Your task to perform on an android device: turn on javascript in the chrome app Image 0: 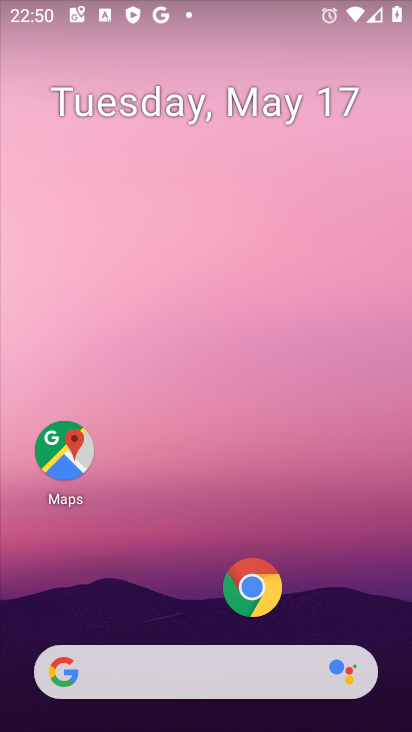
Step 0: drag from (197, 611) to (198, 275)
Your task to perform on an android device: turn on javascript in the chrome app Image 1: 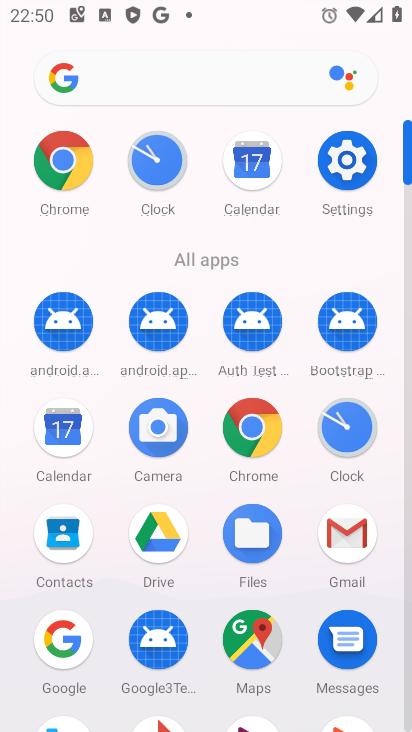
Step 1: click (263, 444)
Your task to perform on an android device: turn on javascript in the chrome app Image 2: 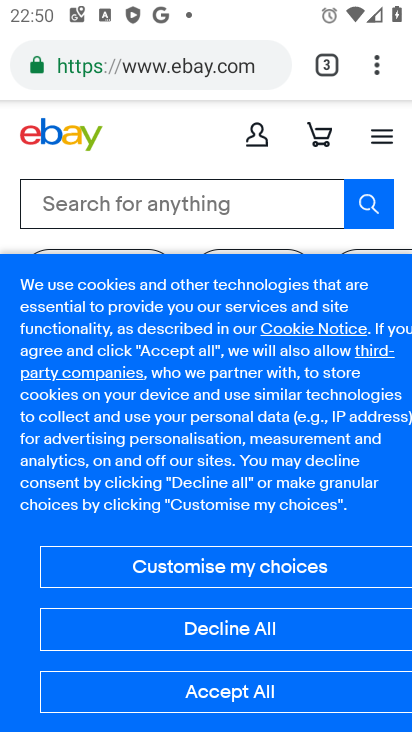
Step 2: click (367, 67)
Your task to perform on an android device: turn on javascript in the chrome app Image 3: 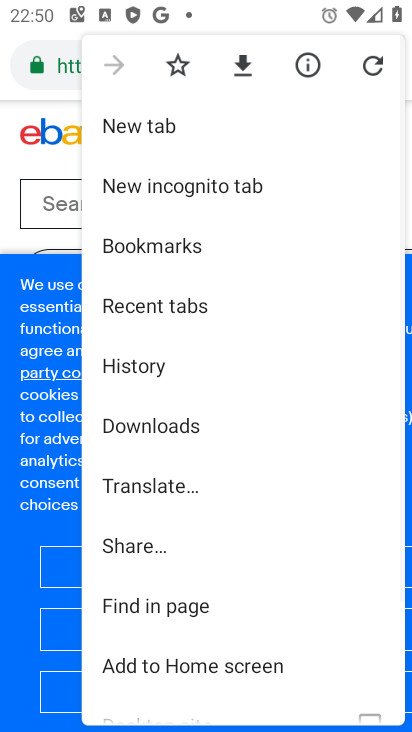
Step 3: drag from (182, 627) to (239, 279)
Your task to perform on an android device: turn on javascript in the chrome app Image 4: 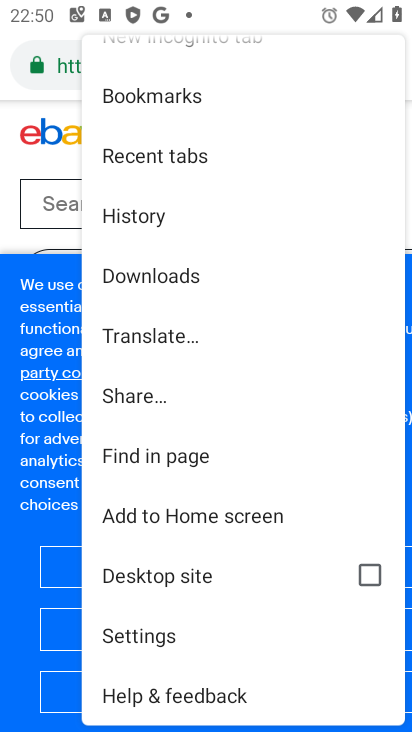
Step 4: click (154, 647)
Your task to perform on an android device: turn on javascript in the chrome app Image 5: 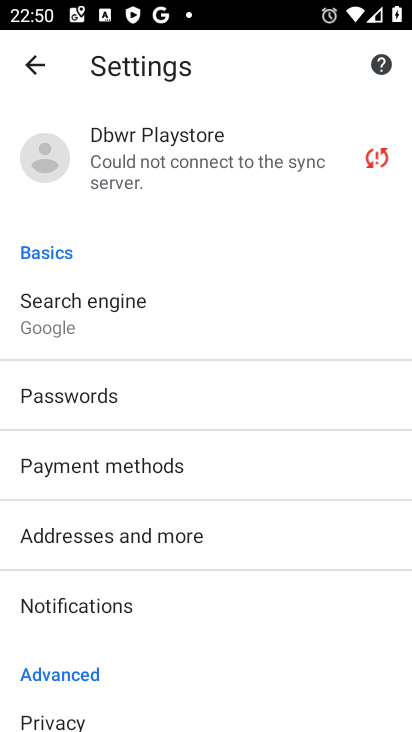
Step 5: drag from (144, 643) to (176, 304)
Your task to perform on an android device: turn on javascript in the chrome app Image 6: 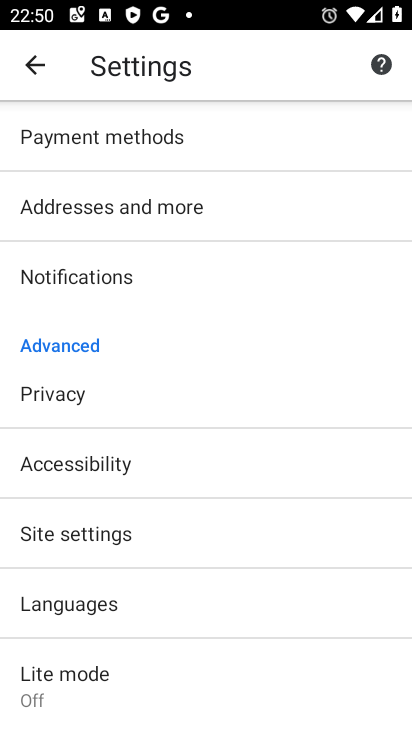
Step 6: click (134, 542)
Your task to perform on an android device: turn on javascript in the chrome app Image 7: 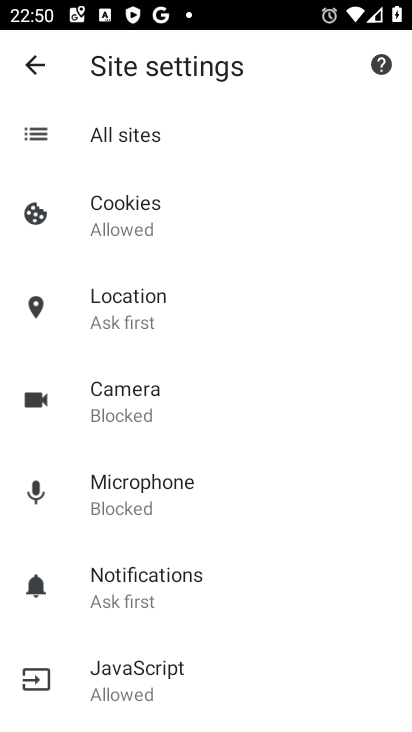
Step 7: click (165, 678)
Your task to perform on an android device: turn on javascript in the chrome app Image 8: 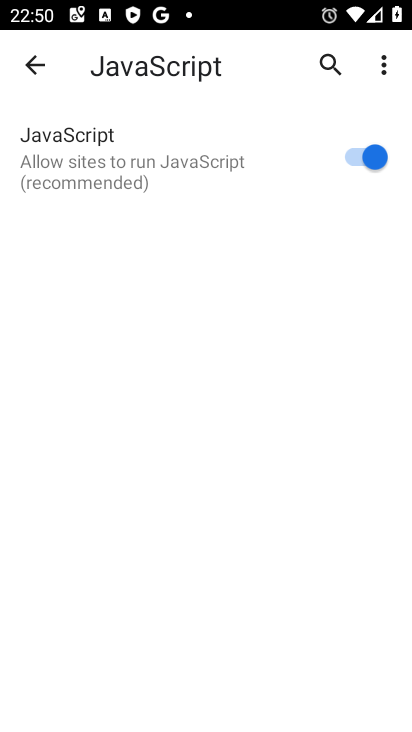
Step 8: task complete